Your task to perform on an android device: check google app version Image 0: 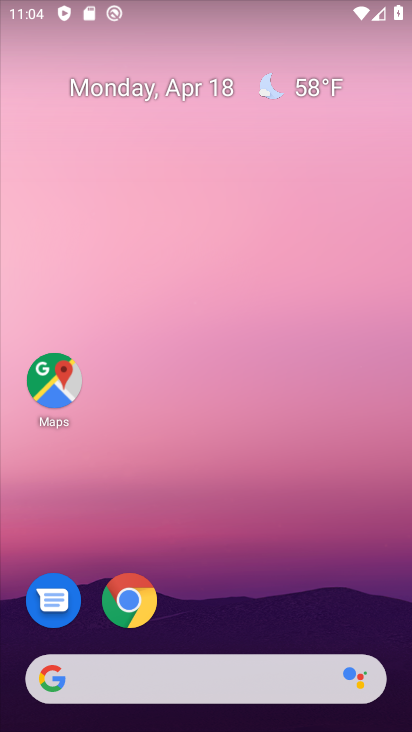
Step 0: drag from (276, 378) to (322, 6)
Your task to perform on an android device: check google app version Image 1: 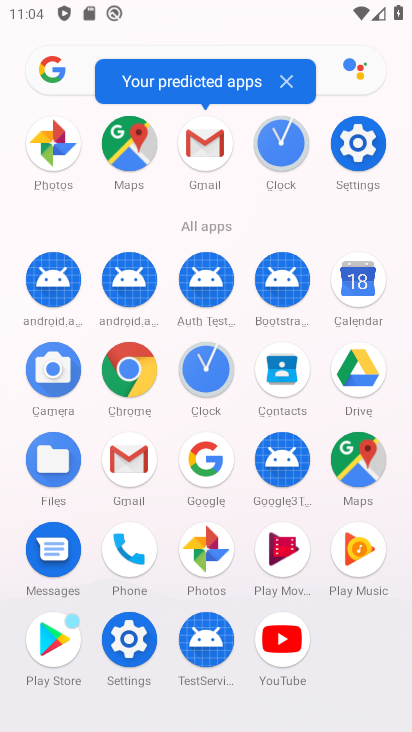
Step 1: click (199, 462)
Your task to perform on an android device: check google app version Image 2: 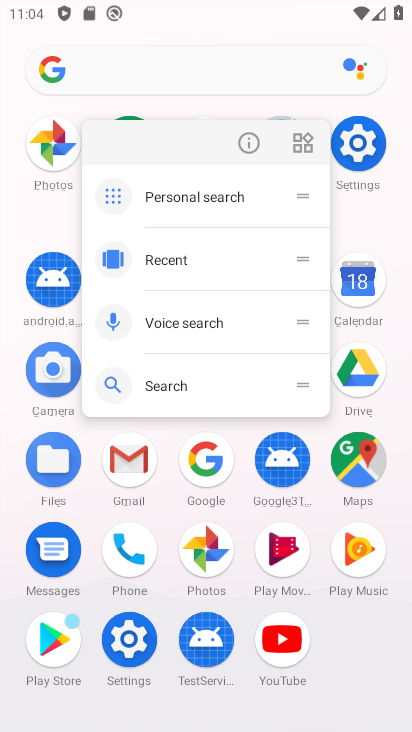
Step 2: click (241, 137)
Your task to perform on an android device: check google app version Image 3: 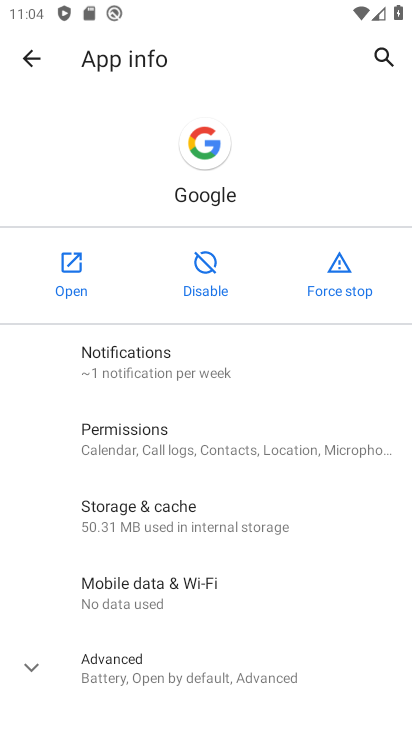
Step 3: drag from (167, 650) to (246, 54)
Your task to perform on an android device: check google app version Image 4: 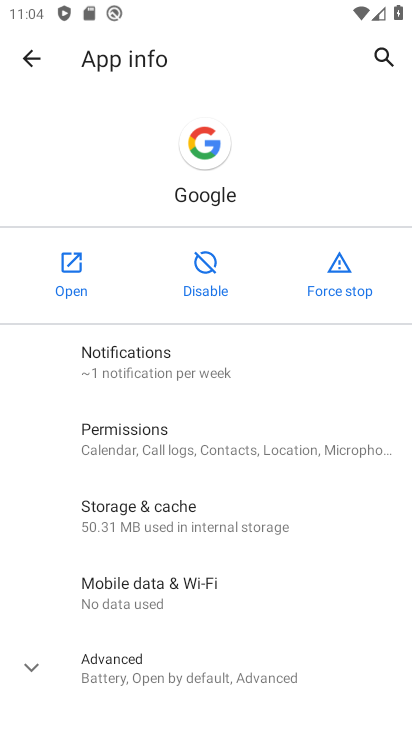
Step 4: click (155, 665)
Your task to perform on an android device: check google app version Image 5: 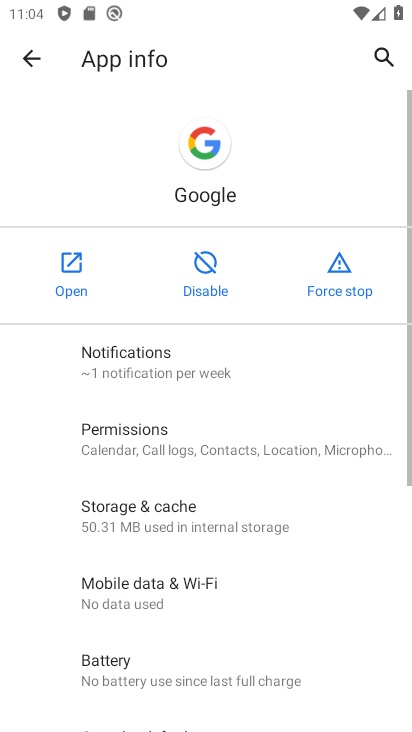
Step 5: task complete